Your task to perform on an android device: see sites visited before in the chrome app Image 0: 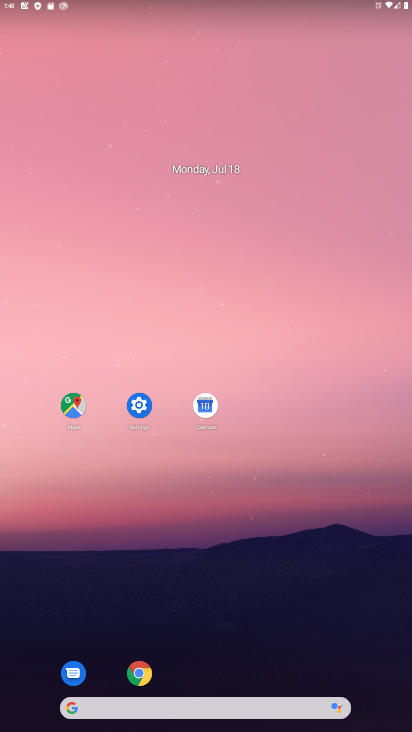
Step 0: click (143, 676)
Your task to perform on an android device: see sites visited before in the chrome app Image 1: 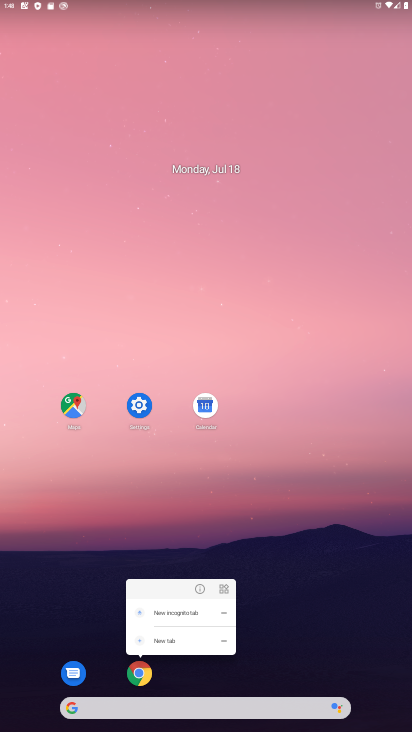
Step 1: click (143, 676)
Your task to perform on an android device: see sites visited before in the chrome app Image 2: 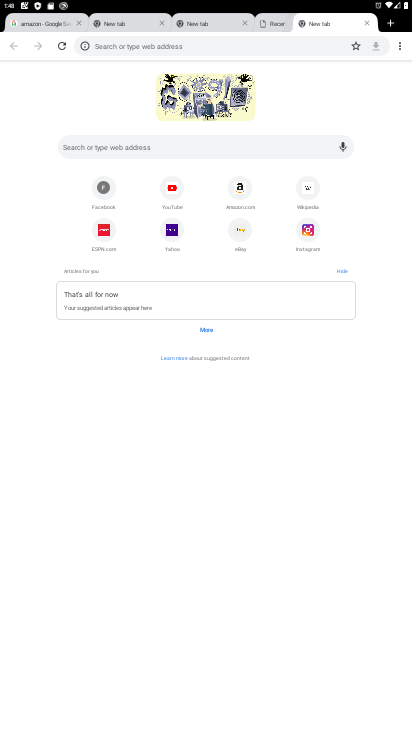
Step 2: click (400, 48)
Your task to perform on an android device: see sites visited before in the chrome app Image 3: 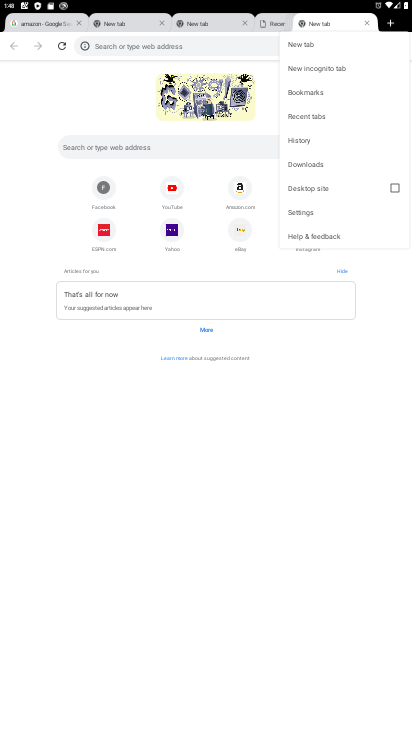
Step 3: click (300, 114)
Your task to perform on an android device: see sites visited before in the chrome app Image 4: 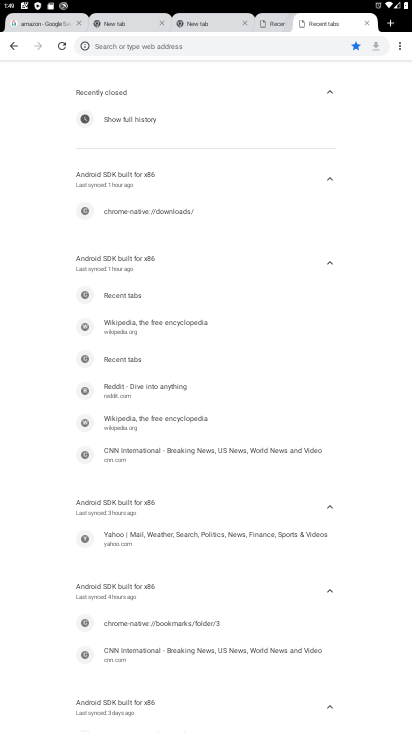
Step 4: task complete